Your task to perform on an android device: Search for "logitech g903" on costco.com, select the first entry, and add it to the cart. Image 0: 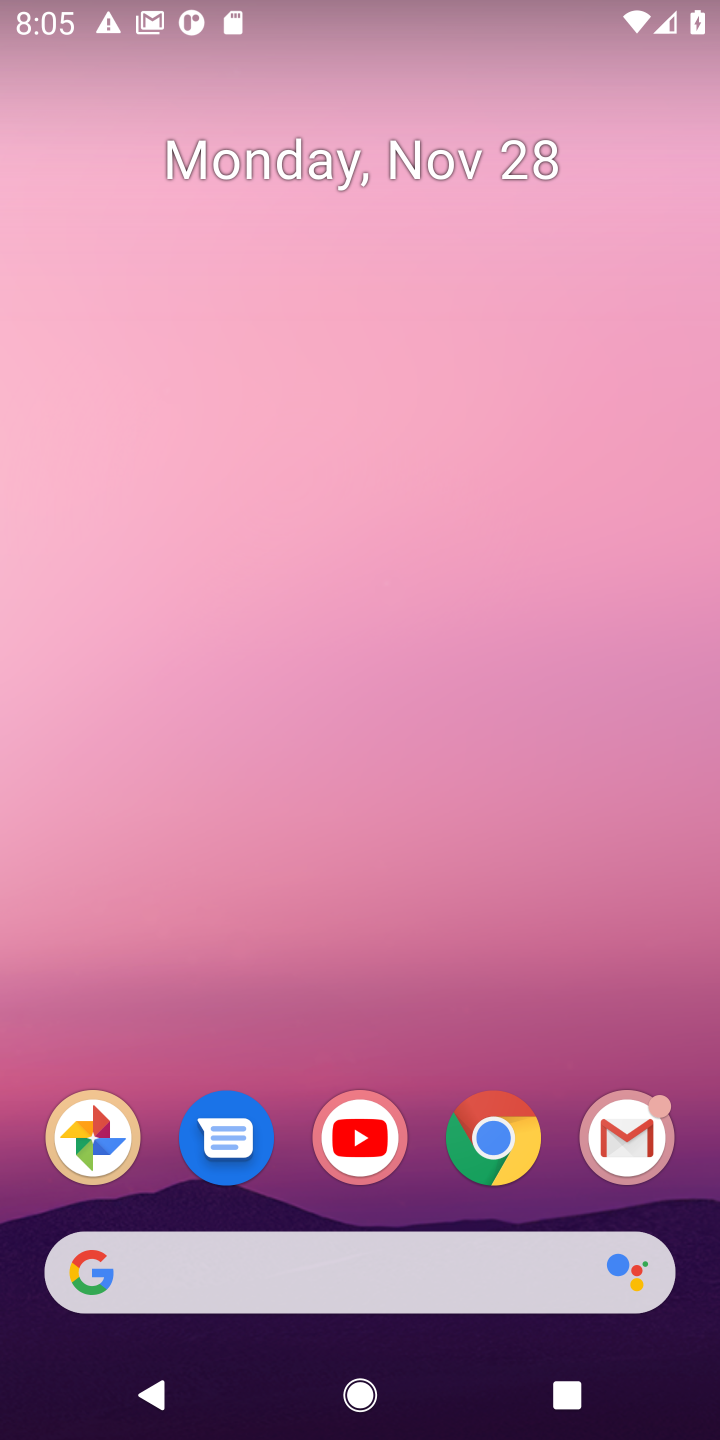
Step 0: click (489, 1148)
Your task to perform on an android device: Search for "logitech g903" on costco.com, select the first entry, and add it to the cart. Image 1: 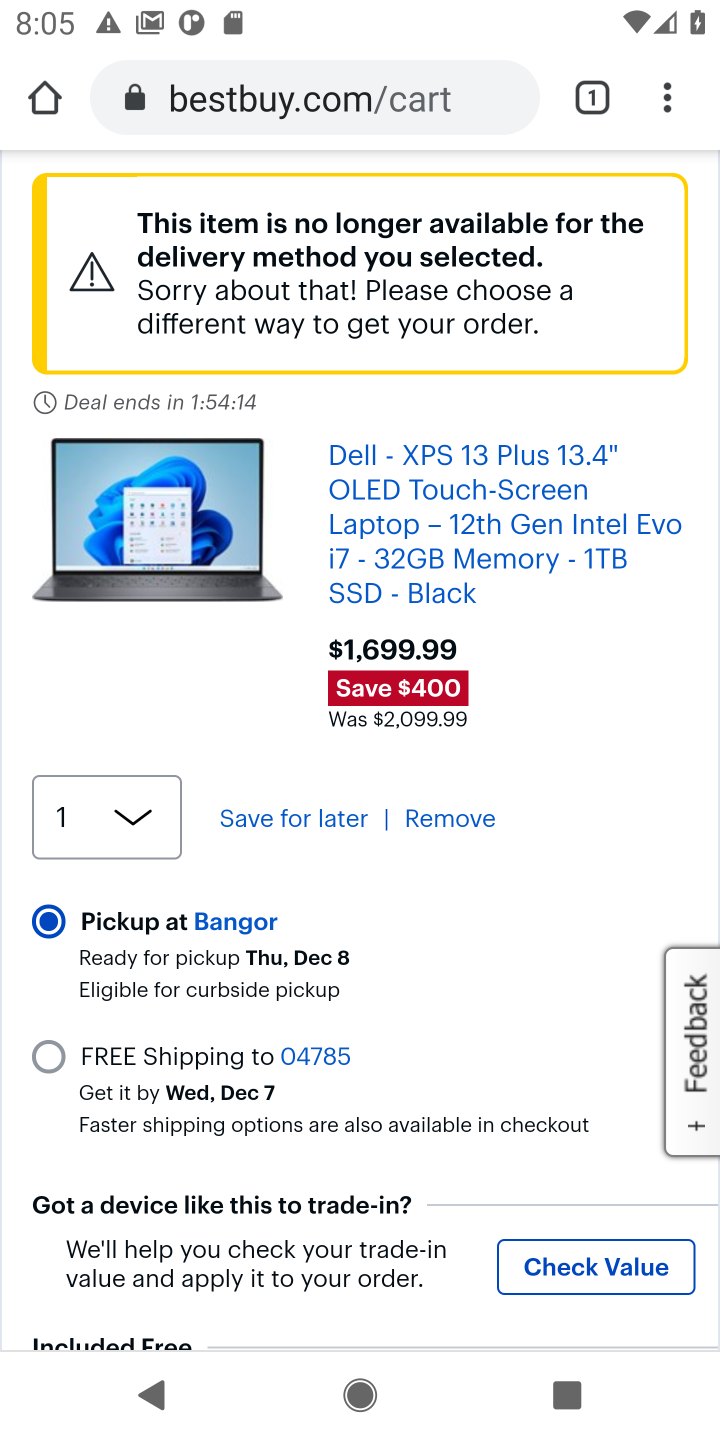
Step 1: click (299, 104)
Your task to perform on an android device: Search for "logitech g903" on costco.com, select the first entry, and add it to the cart. Image 2: 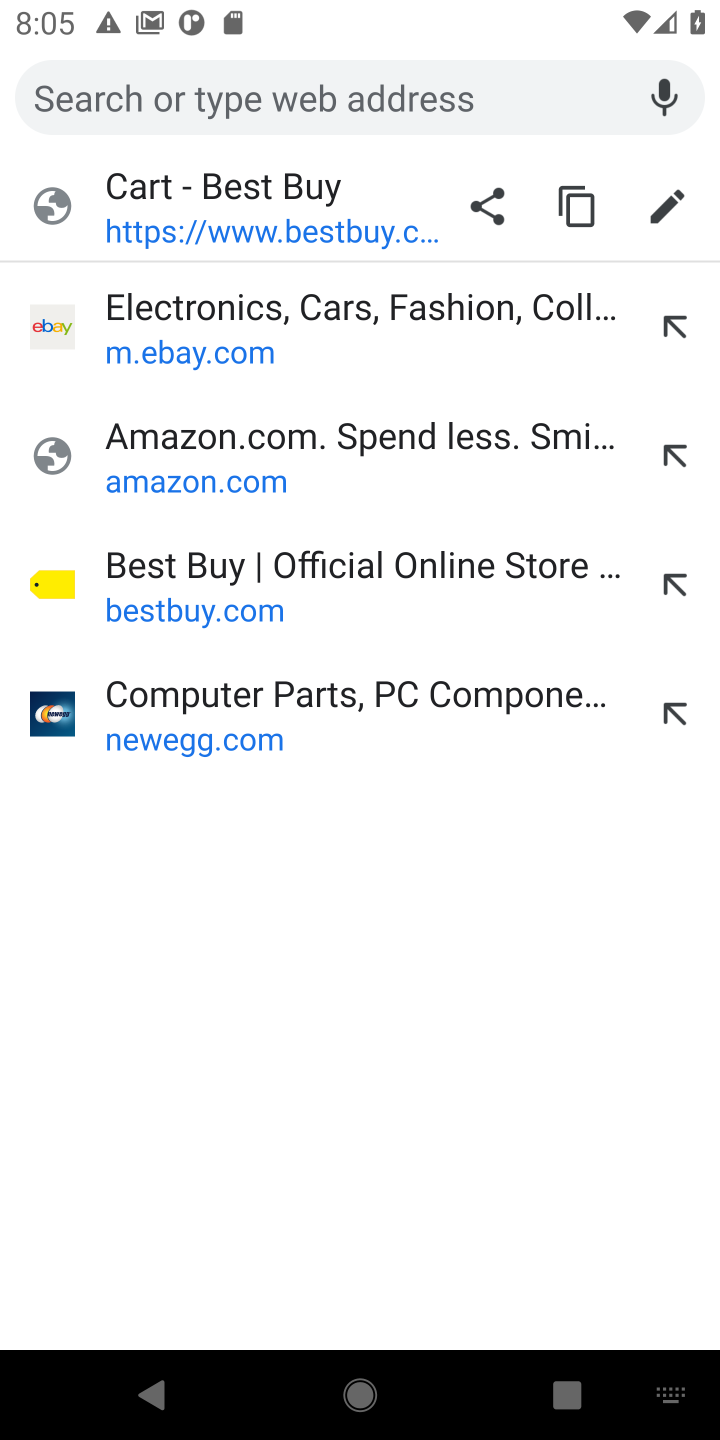
Step 2: type "costco.com"
Your task to perform on an android device: Search for "logitech g903" on costco.com, select the first entry, and add it to the cart. Image 3: 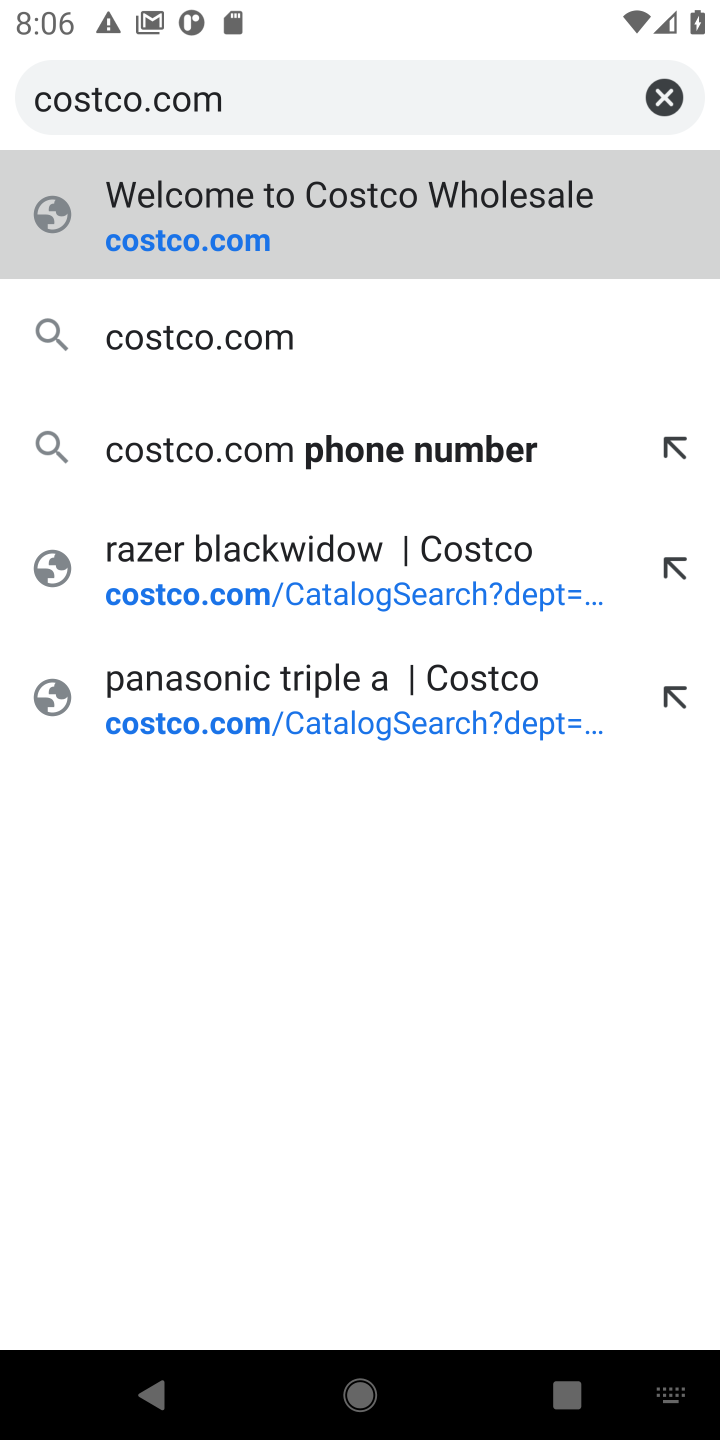
Step 3: click (215, 233)
Your task to perform on an android device: Search for "logitech g903" on costco.com, select the first entry, and add it to the cart. Image 4: 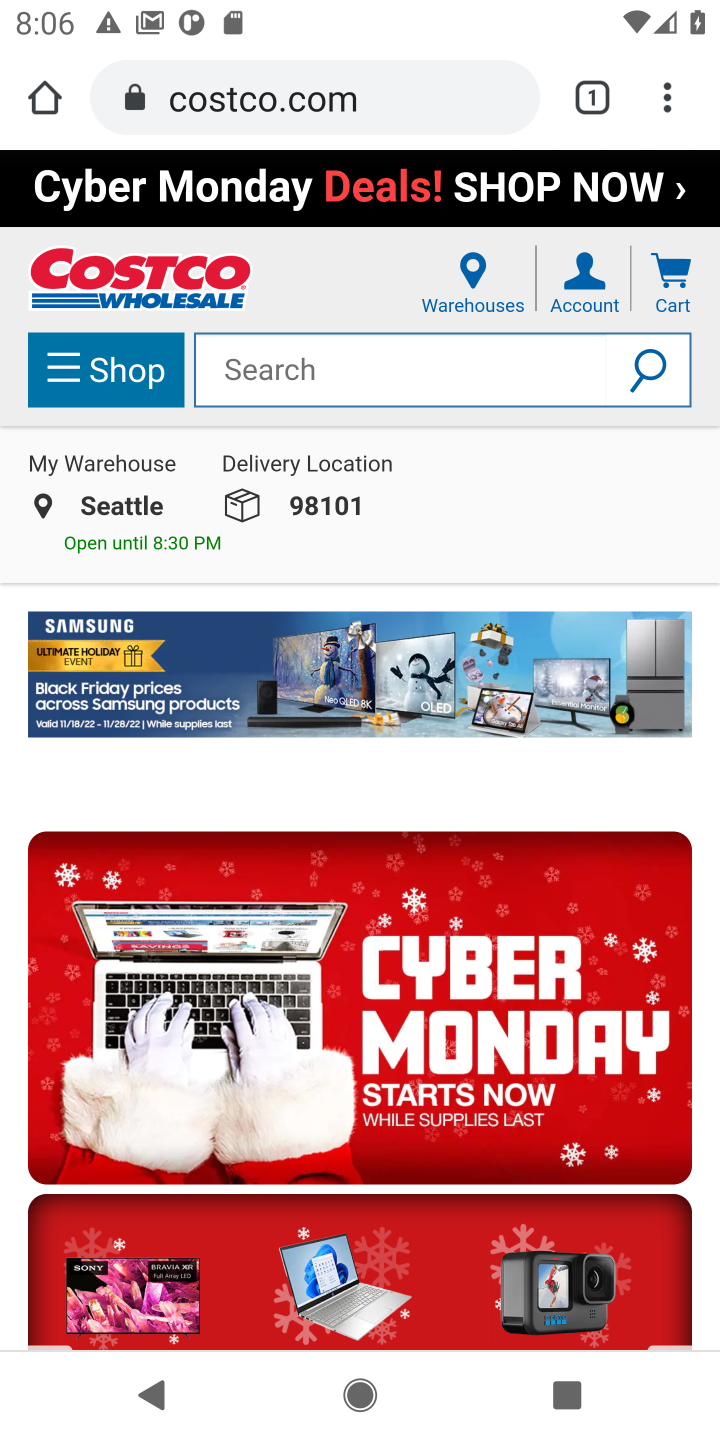
Step 4: click (282, 364)
Your task to perform on an android device: Search for "logitech g903" on costco.com, select the first entry, and add it to the cart. Image 5: 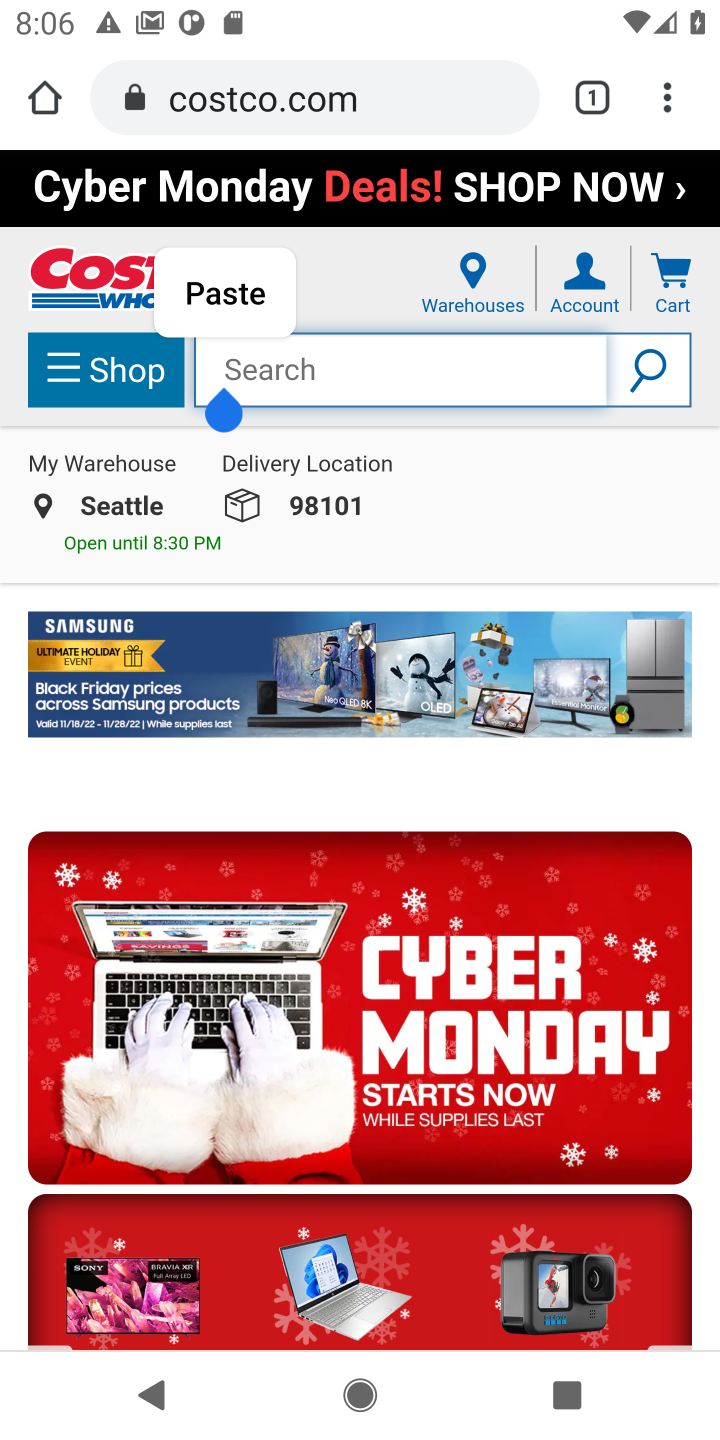
Step 5: type "logitech g903"
Your task to perform on an android device: Search for "logitech g903" on costco.com, select the first entry, and add it to the cart. Image 6: 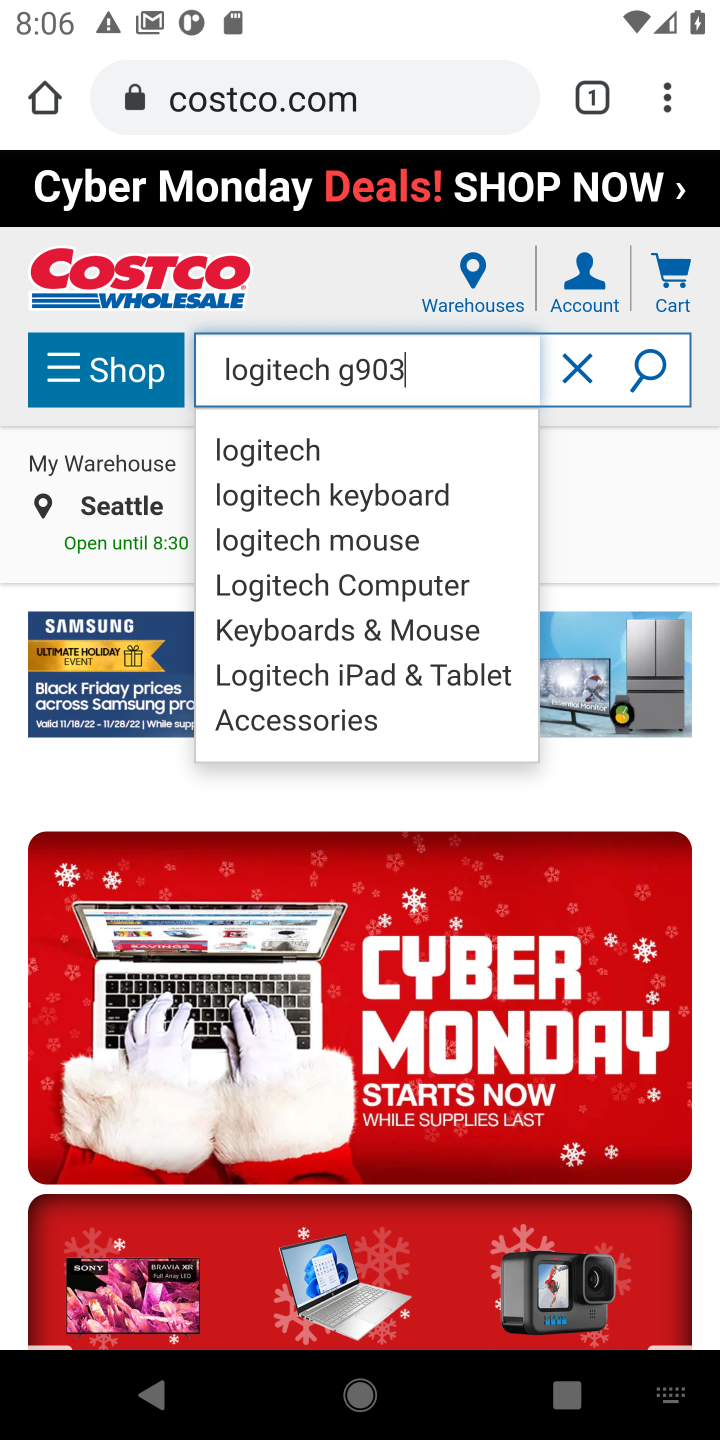
Step 6: click (632, 364)
Your task to perform on an android device: Search for "logitech g903" on costco.com, select the first entry, and add it to the cart. Image 7: 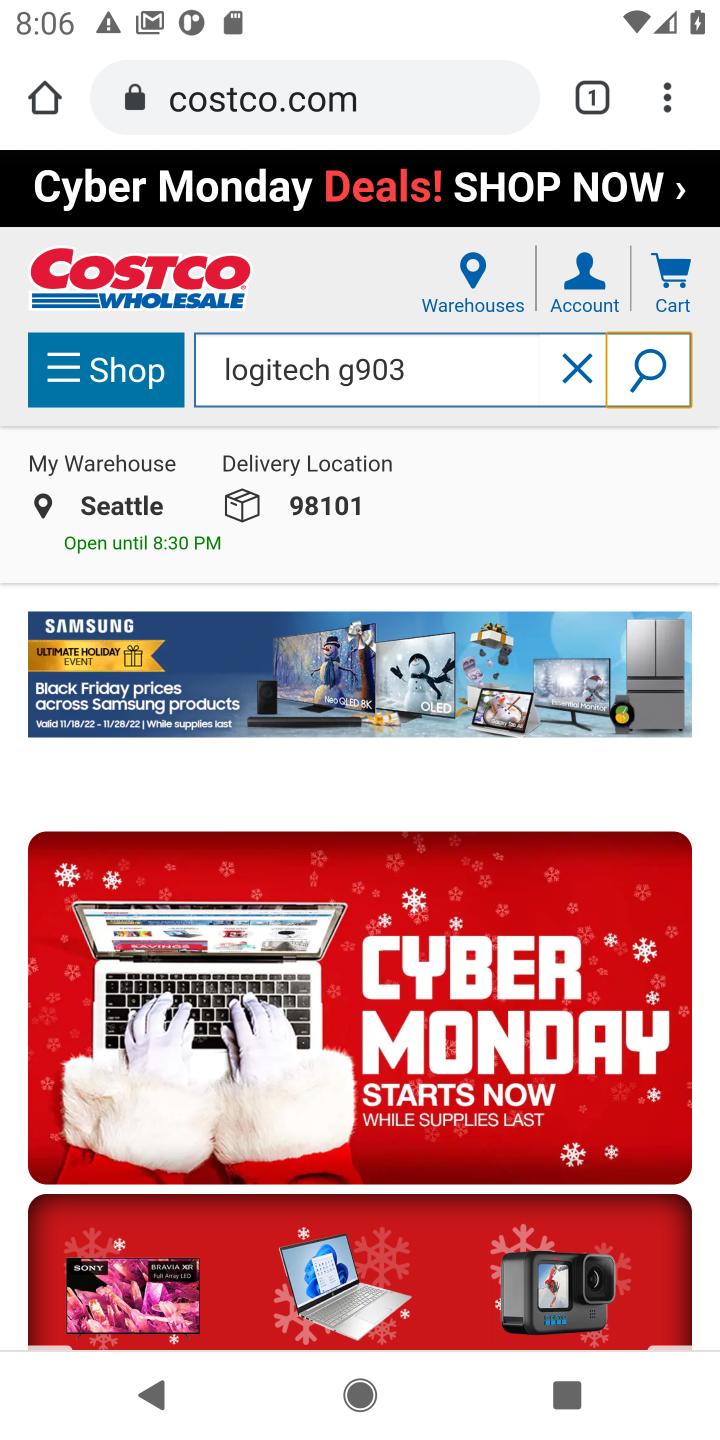
Step 7: click (641, 371)
Your task to perform on an android device: Search for "logitech g903" on costco.com, select the first entry, and add it to the cart. Image 8: 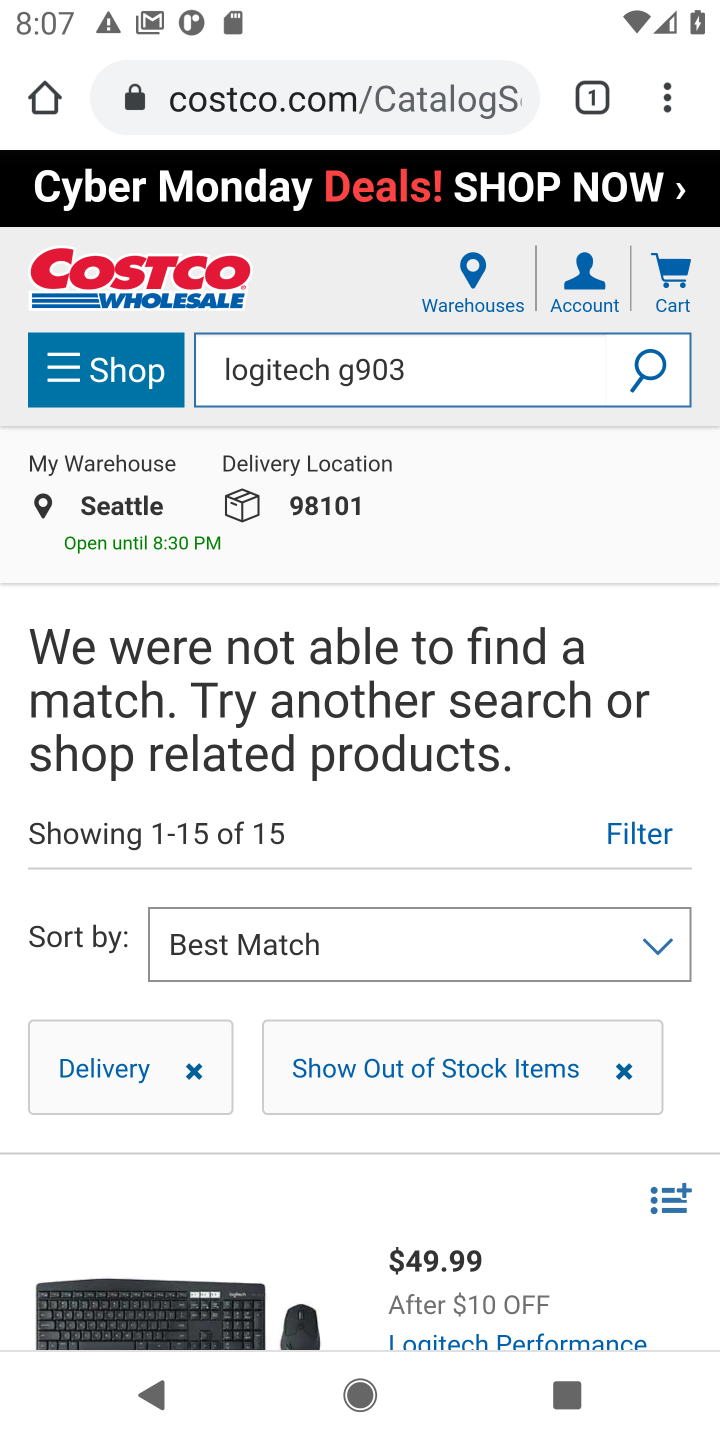
Step 8: task complete